Your task to perform on an android device: Open Google Maps and go to "Timeline" Image 0: 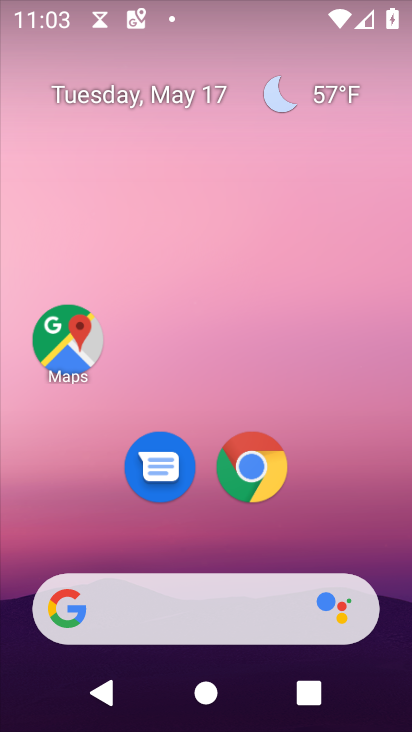
Step 0: click (71, 333)
Your task to perform on an android device: Open Google Maps and go to "Timeline" Image 1: 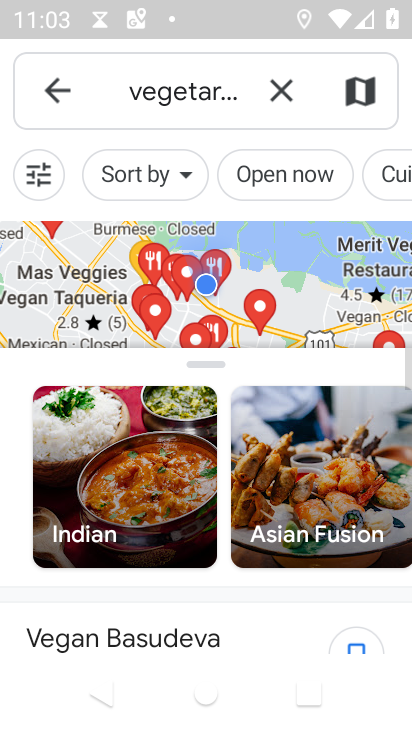
Step 1: click (284, 99)
Your task to perform on an android device: Open Google Maps and go to "Timeline" Image 2: 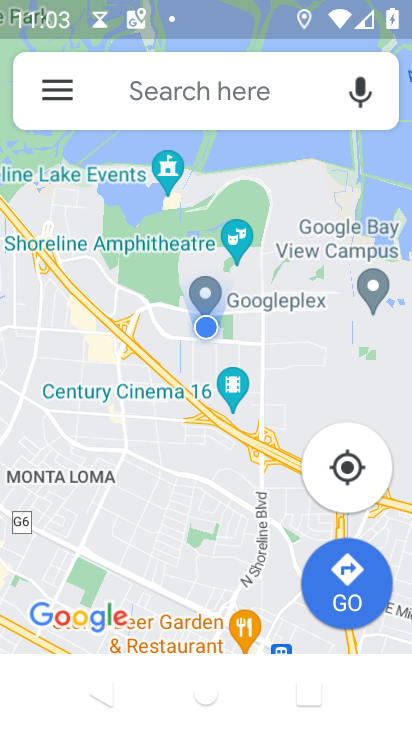
Step 2: click (49, 89)
Your task to perform on an android device: Open Google Maps and go to "Timeline" Image 3: 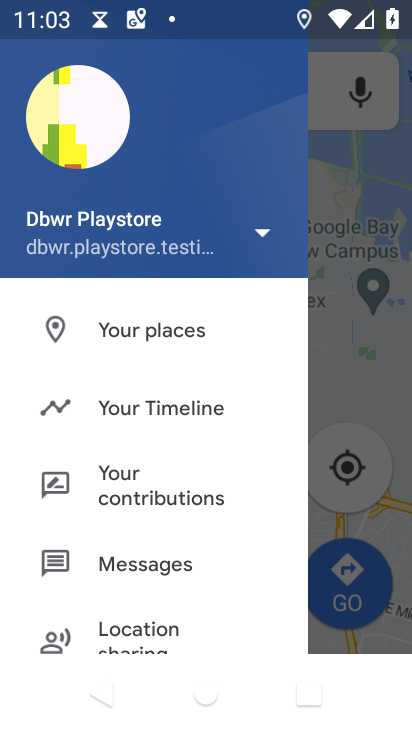
Step 3: click (157, 412)
Your task to perform on an android device: Open Google Maps and go to "Timeline" Image 4: 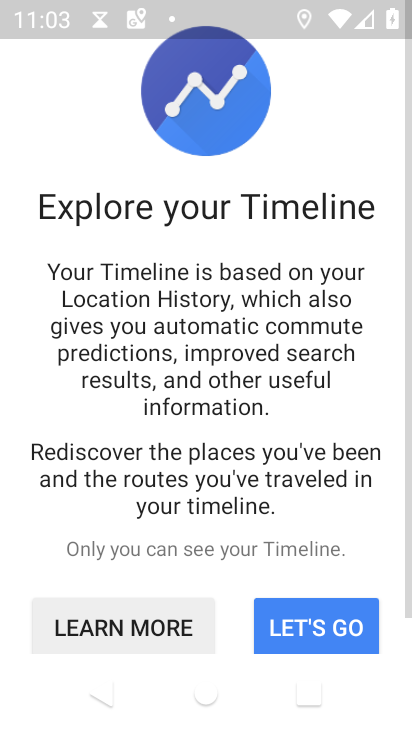
Step 4: click (327, 626)
Your task to perform on an android device: Open Google Maps and go to "Timeline" Image 5: 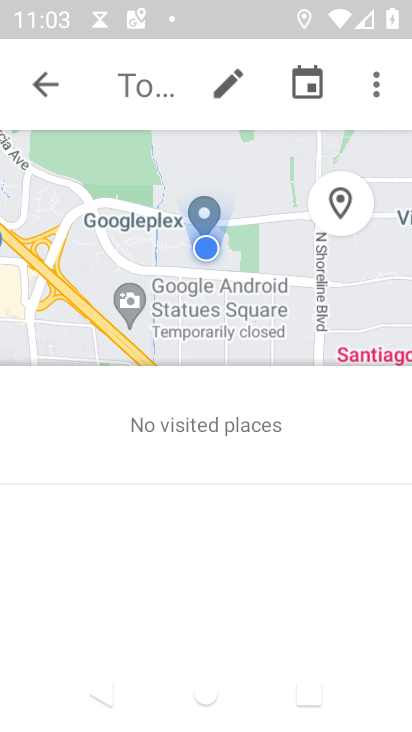
Step 5: task complete